Your task to perform on an android device: change your default location settings in chrome Image 0: 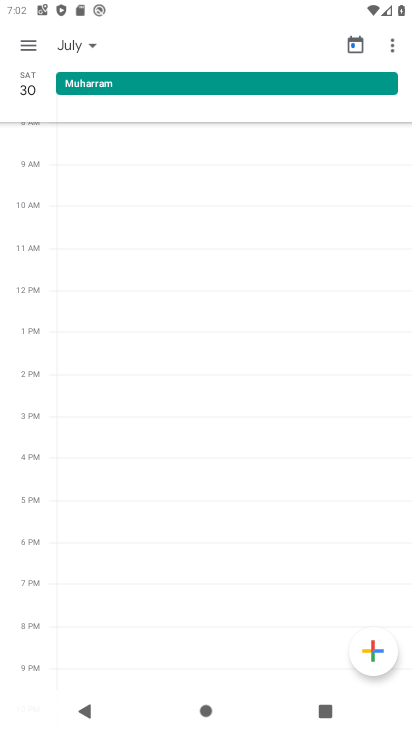
Step 0: press home button
Your task to perform on an android device: change your default location settings in chrome Image 1: 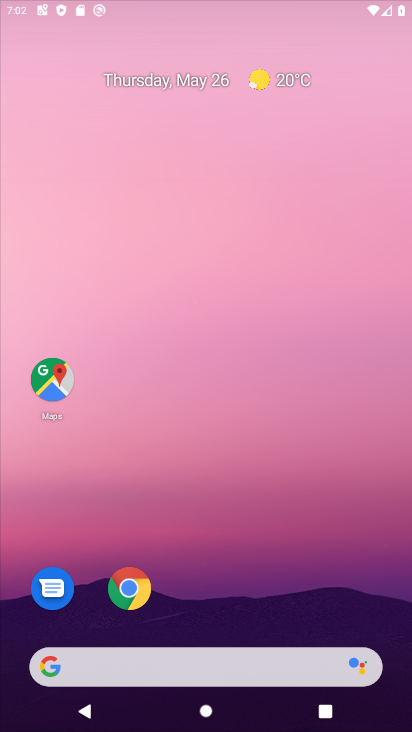
Step 1: drag from (368, 593) to (279, 90)
Your task to perform on an android device: change your default location settings in chrome Image 2: 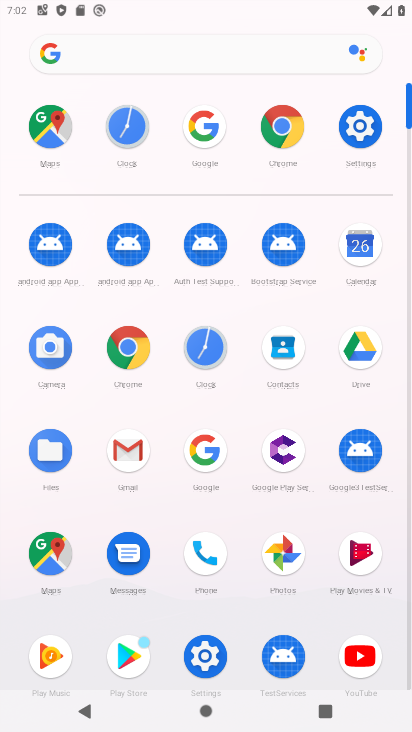
Step 2: click (289, 121)
Your task to perform on an android device: change your default location settings in chrome Image 3: 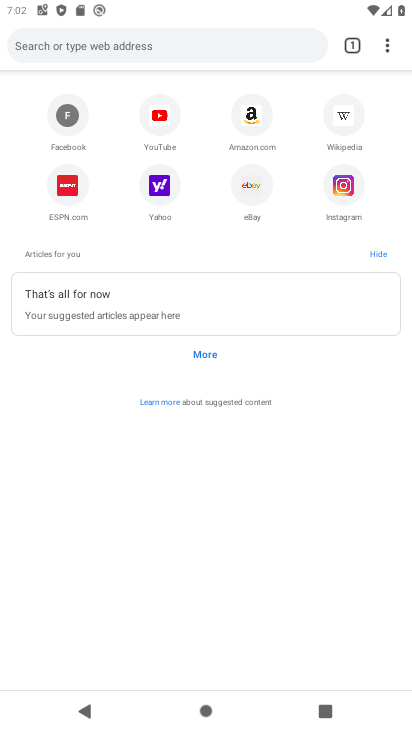
Step 3: click (393, 32)
Your task to perform on an android device: change your default location settings in chrome Image 4: 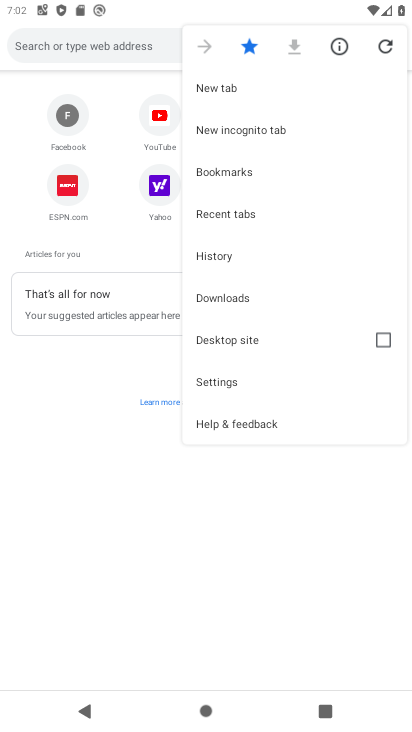
Step 4: click (250, 388)
Your task to perform on an android device: change your default location settings in chrome Image 5: 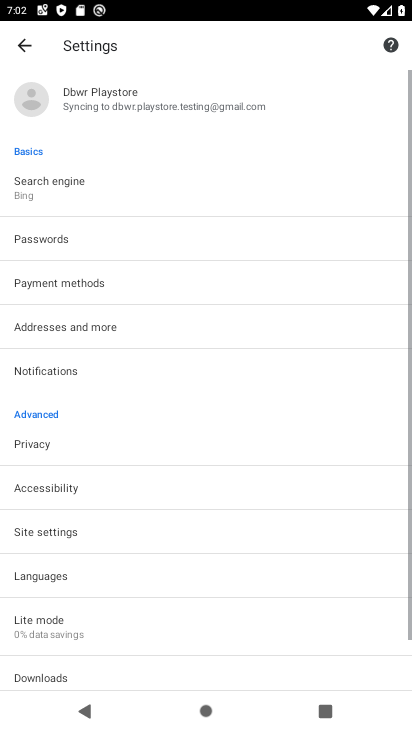
Step 5: click (143, 202)
Your task to perform on an android device: change your default location settings in chrome Image 6: 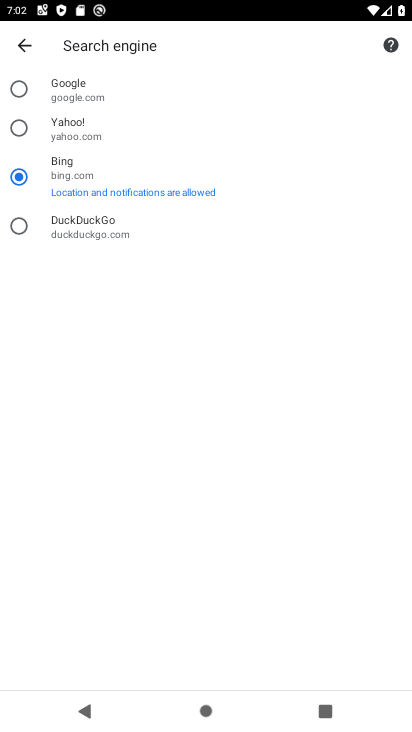
Step 6: click (49, 85)
Your task to perform on an android device: change your default location settings in chrome Image 7: 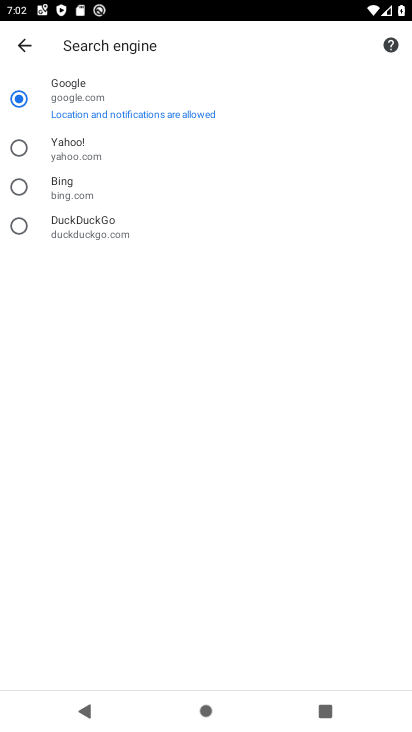
Step 7: task complete